Your task to perform on an android device: add a contact Image 0: 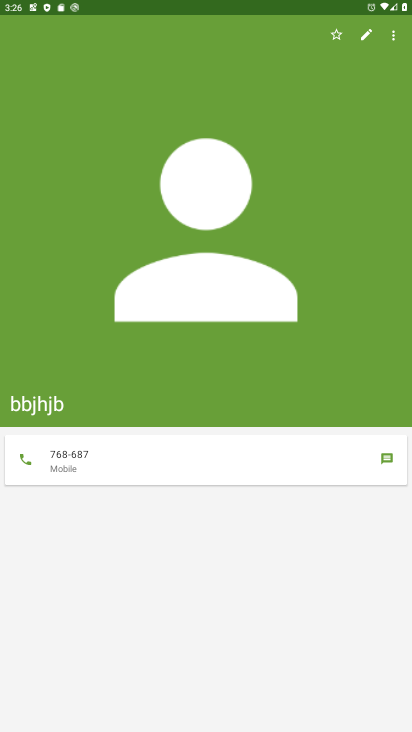
Step 0: press back button
Your task to perform on an android device: add a contact Image 1: 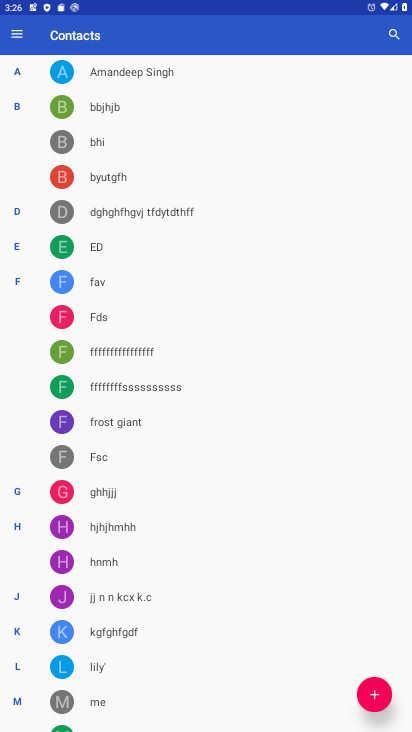
Step 1: click (375, 692)
Your task to perform on an android device: add a contact Image 2: 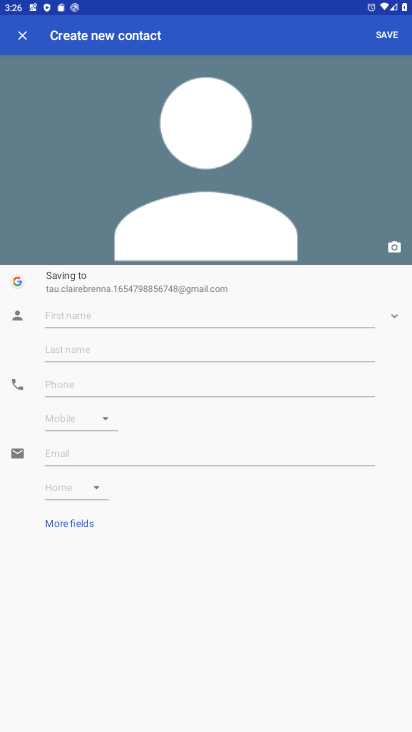
Step 2: click (269, 323)
Your task to perform on an android device: add a contact Image 3: 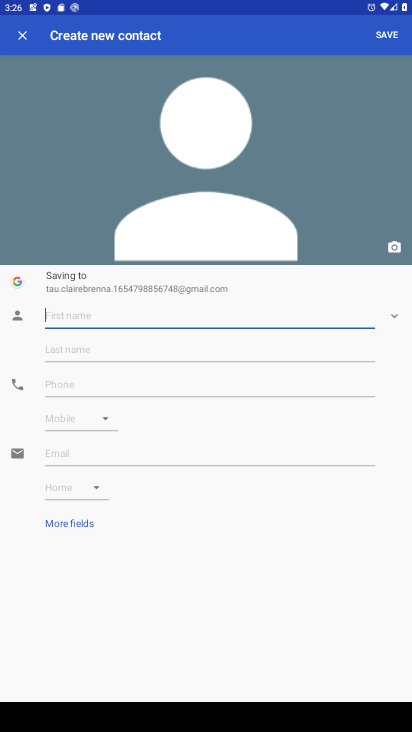
Step 3: type "bjhbjhbjh"
Your task to perform on an android device: add a contact Image 4: 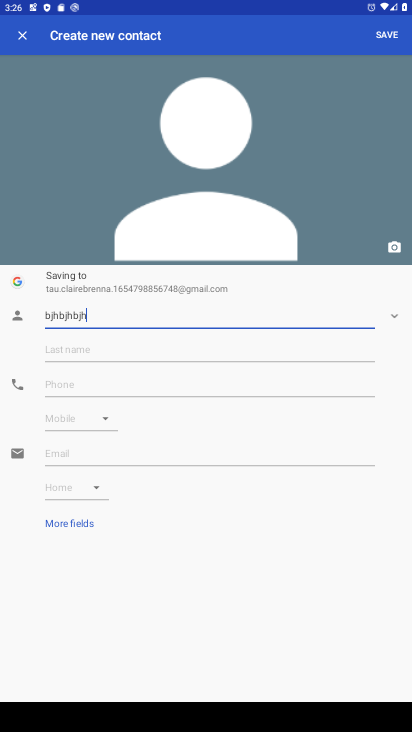
Step 4: click (324, 375)
Your task to perform on an android device: add a contact Image 5: 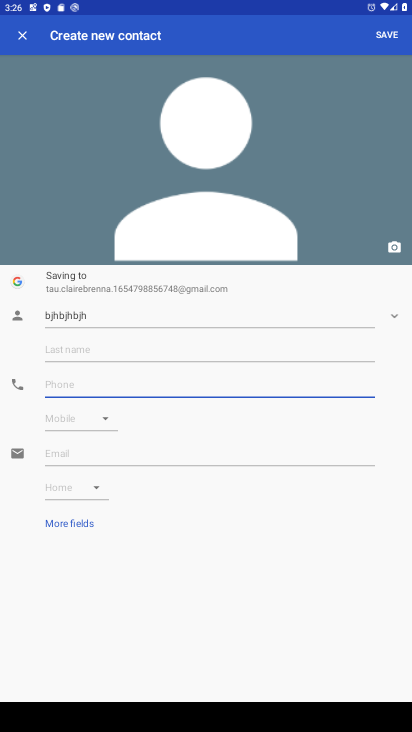
Step 5: type "687687687"
Your task to perform on an android device: add a contact Image 6: 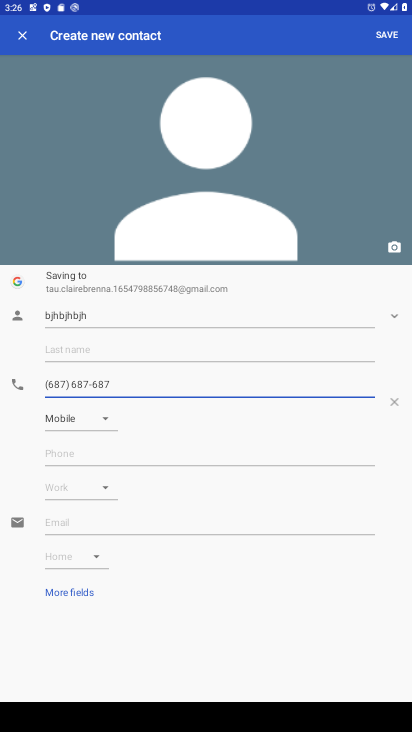
Step 6: click (388, 39)
Your task to perform on an android device: add a contact Image 7: 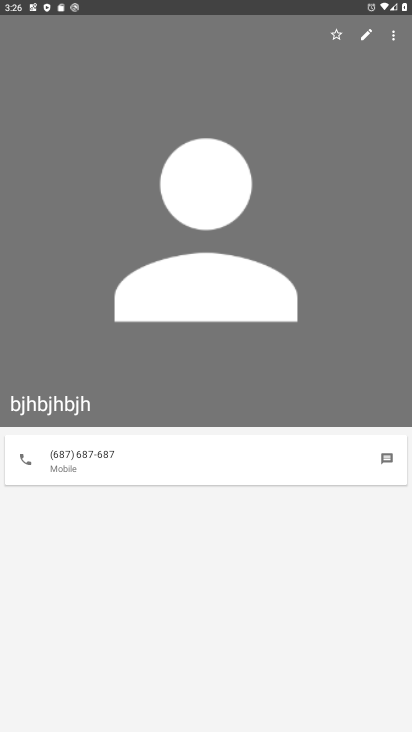
Step 7: task complete